Your task to perform on an android device: delete the emails in spam in the gmail app Image 0: 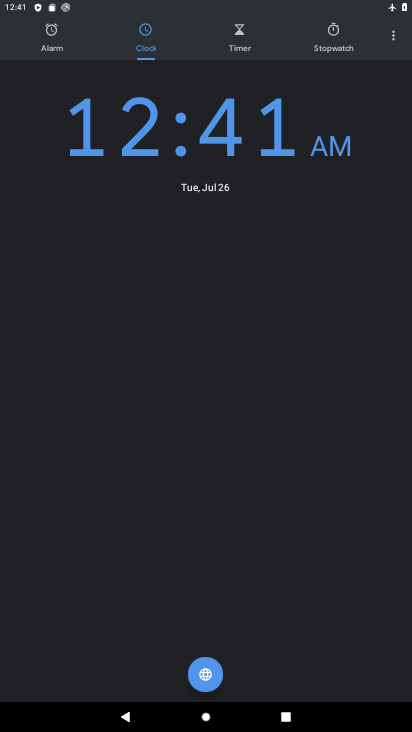
Step 0: press home button
Your task to perform on an android device: delete the emails in spam in the gmail app Image 1: 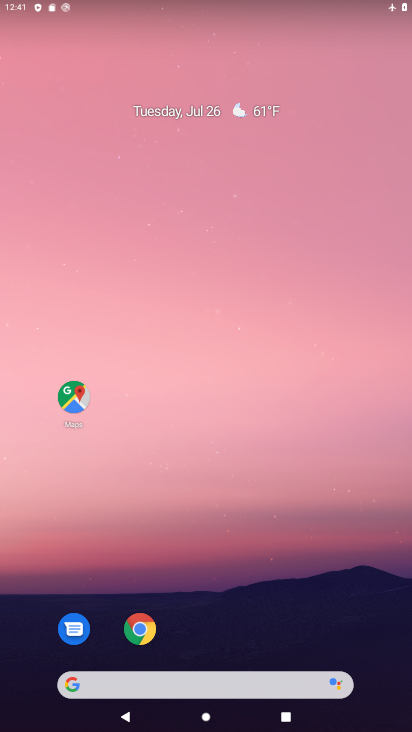
Step 1: drag from (207, 650) to (181, 85)
Your task to perform on an android device: delete the emails in spam in the gmail app Image 2: 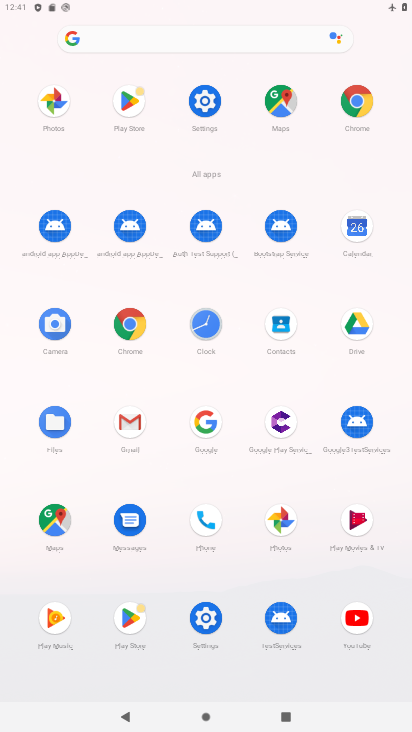
Step 2: click (127, 423)
Your task to perform on an android device: delete the emails in spam in the gmail app Image 3: 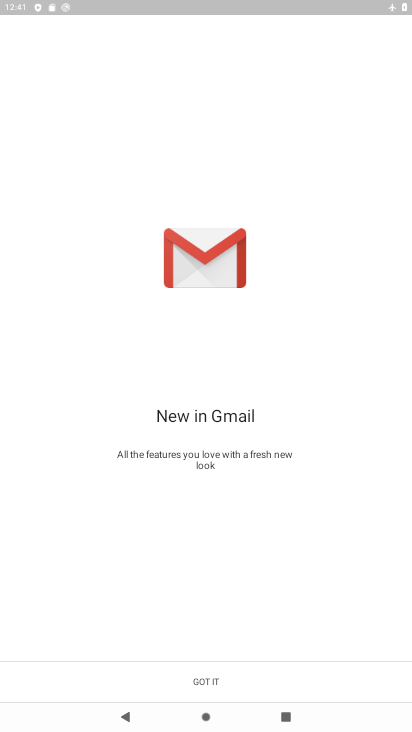
Step 3: click (199, 671)
Your task to perform on an android device: delete the emails in spam in the gmail app Image 4: 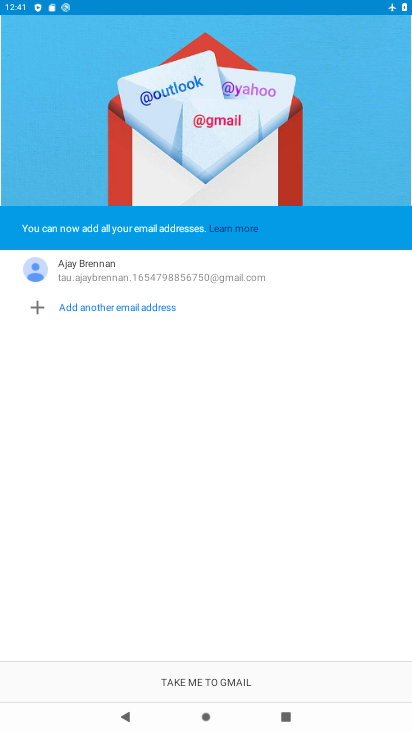
Step 4: click (210, 671)
Your task to perform on an android device: delete the emails in spam in the gmail app Image 5: 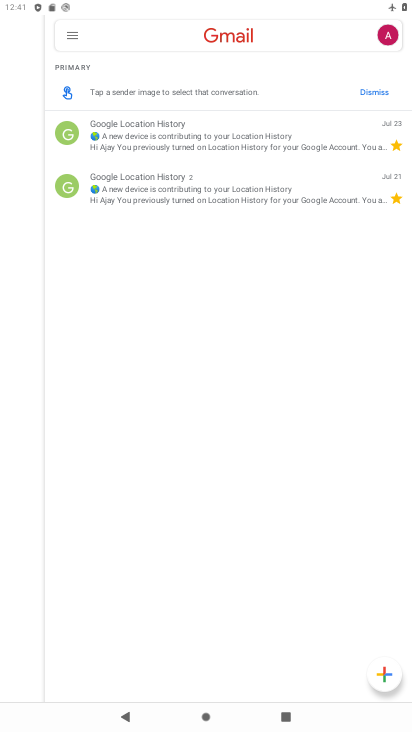
Step 5: drag from (206, 142) to (176, 409)
Your task to perform on an android device: delete the emails in spam in the gmail app Image 6: 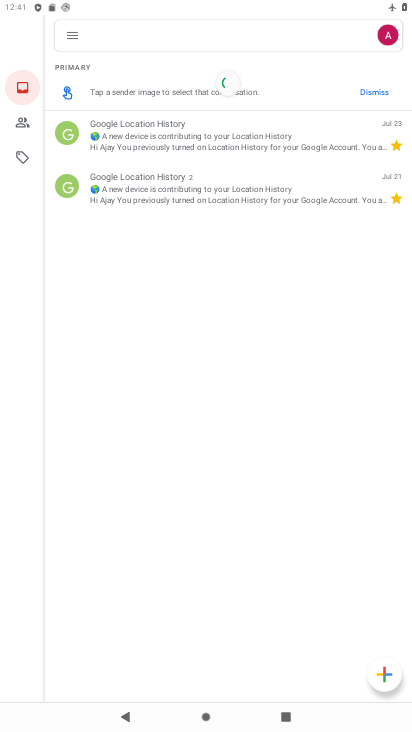
Step 6: click (283, 138)
Your task to perform on an android device: delete the emails in spam in the gmail app Image 7: 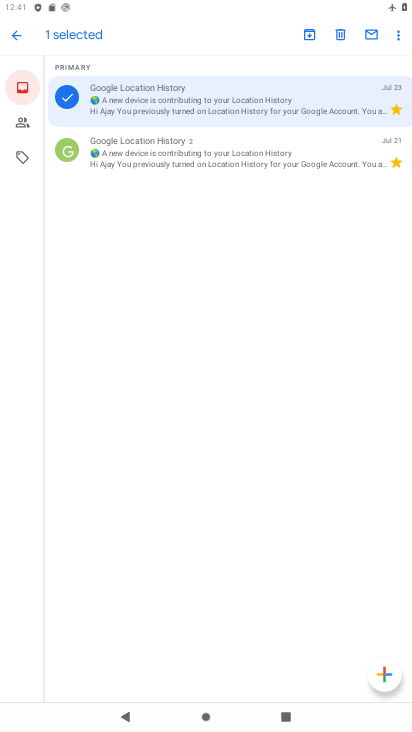
Step 7: click (8, 39)
Your task to perform on an android device: delete the emails in spam in the gmail app Image 8: 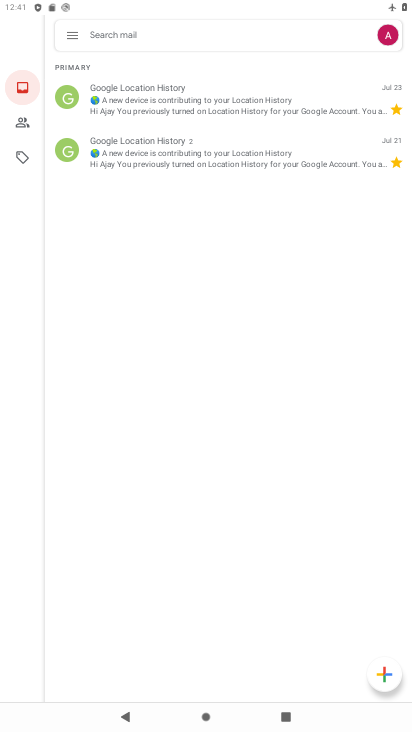
Step 8: click (60, 37)
Your task to perform on an android device: delete the emails in spam in the gmail app Image 9: 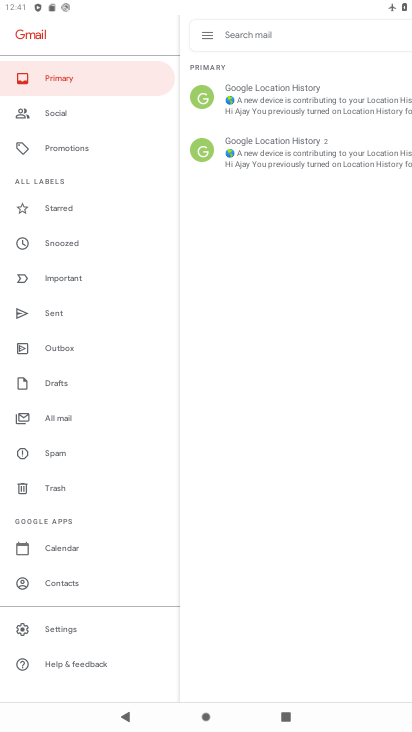
Step 9: click (69, 461)
Your task to perform on an android device: delete the emails in spam in the gmail app Image 10: 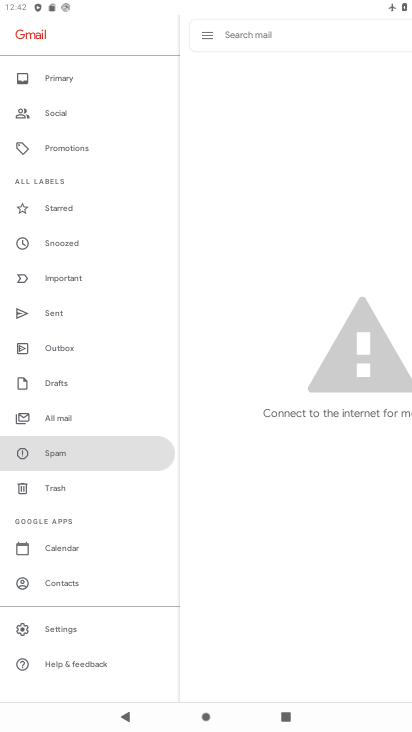
Step 10: task complete